Your task to perform on an android device: Go to Google Image 0: 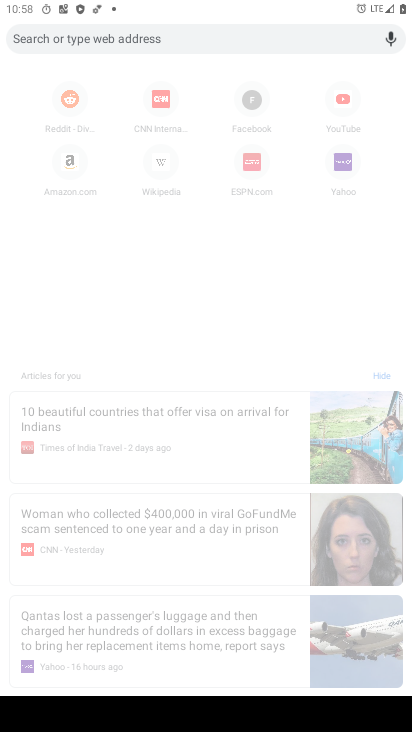
Step 0: press home button
Your task to perform on an android device: Go to Google Image 1: 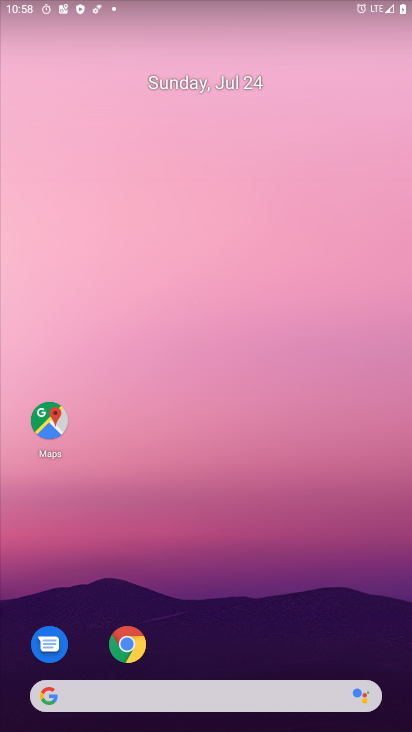
Step 1: drag from (246, 312) to (250, 96)
Your task to perform on an android device: Go to Google Image 2: 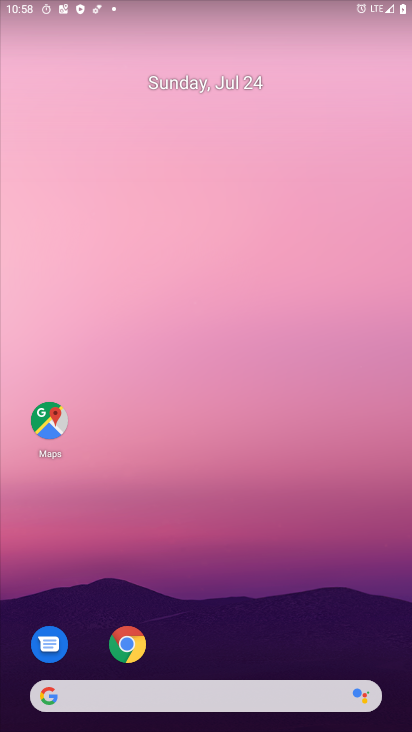
Step 2: drag from (172, 659) to (228, 163)
Your task to perform on an android device: Go to Google Image 3: 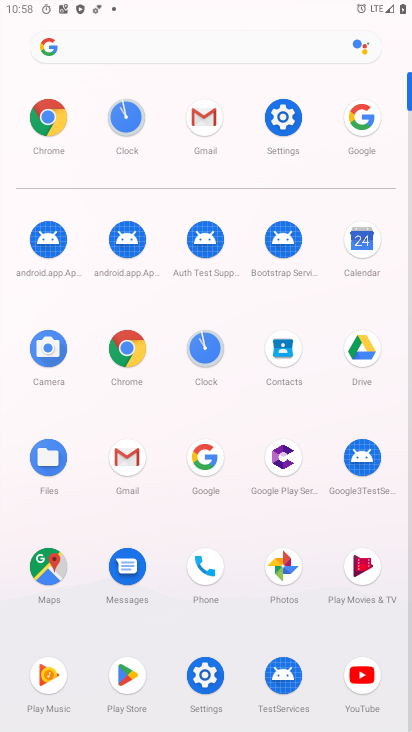
Step 3: click (201, 463)
Your task to perform on an android device: Go to Google Image 4: 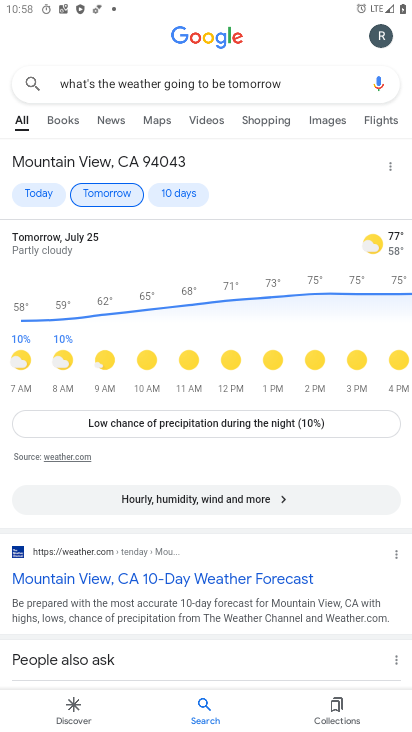
Step 4: click (296, 84)
Your task to perform on an android device: Go to Google Image 5: 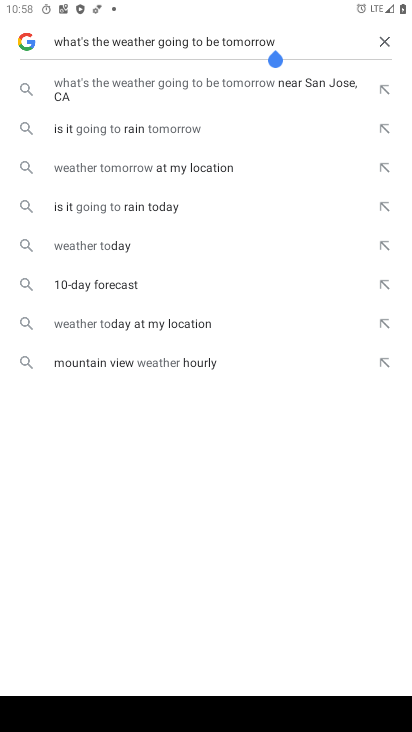
Step 5: click (385, 40)
Your task to perform on an android device: Go to Google Image 6: 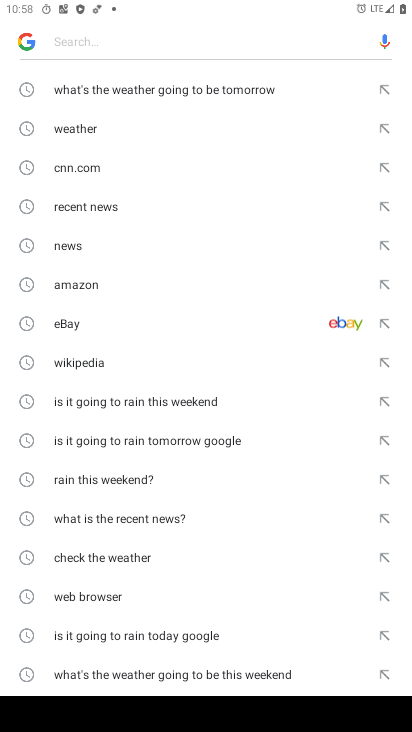
Step 6: task complete